Your task to perform on an android device: turn on sleep mode Image 0: 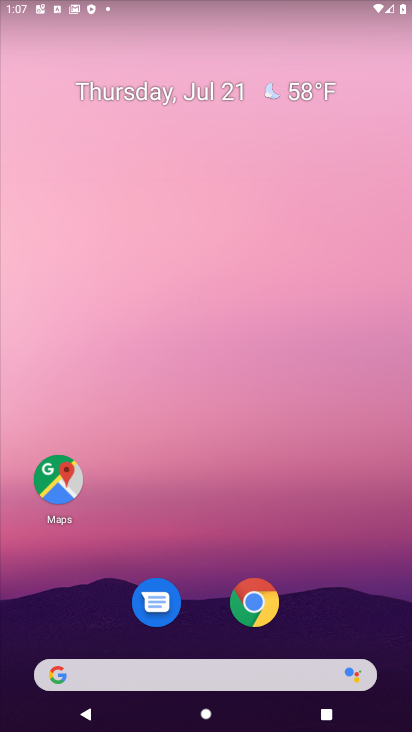
Step 0: drag from (355, 631) to (241, 3)
Your task to perform on an android device: turn on sleep mode Image 1: 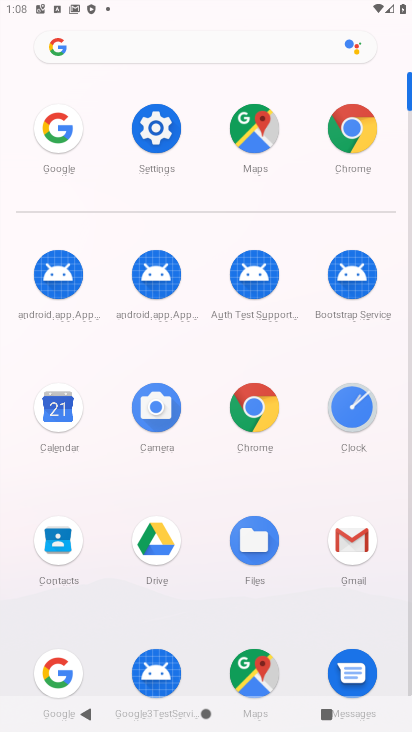
Step 1: click (153, 124)
Your task to perform on an android device: turn on sleep mode Image 2: 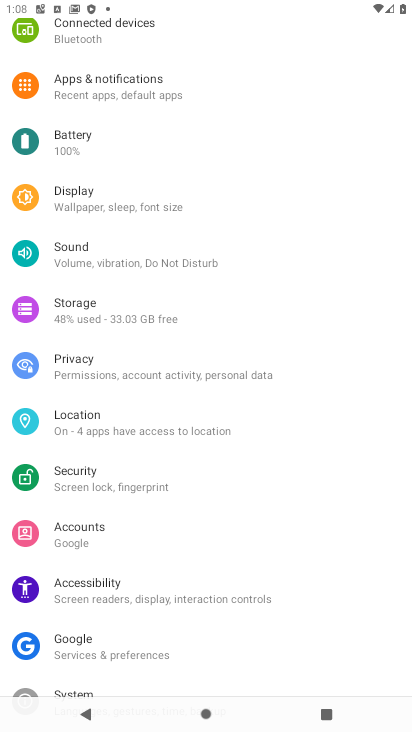
Step 2: task complete